Your task to perform on an android device: Set the phone to "Do not disturb". Image 0: 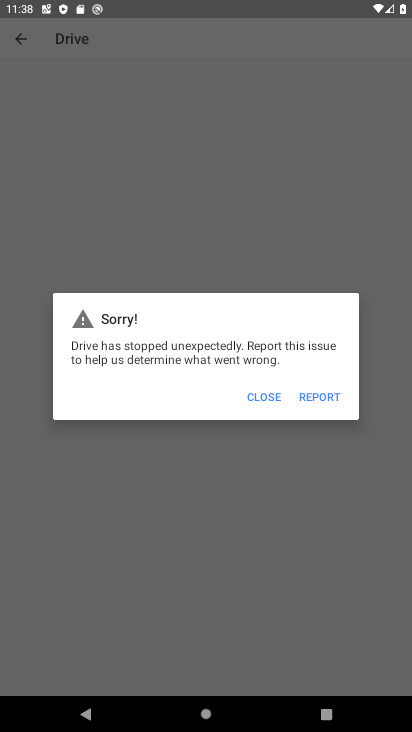
Step 0: press home button
Your task to perform on an android device: Set the phone to "Do not disturb". Image 1: 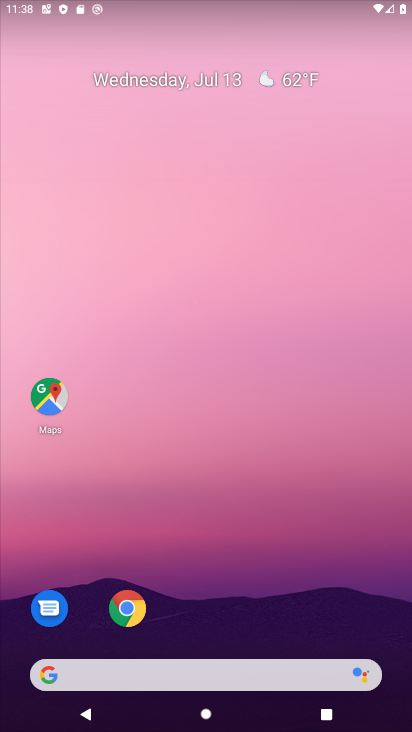
Step 1: drag from (253, 695) to (238, 153)
Your task to perform on an android device: Set the phone to "Do not disturb". Image 2: 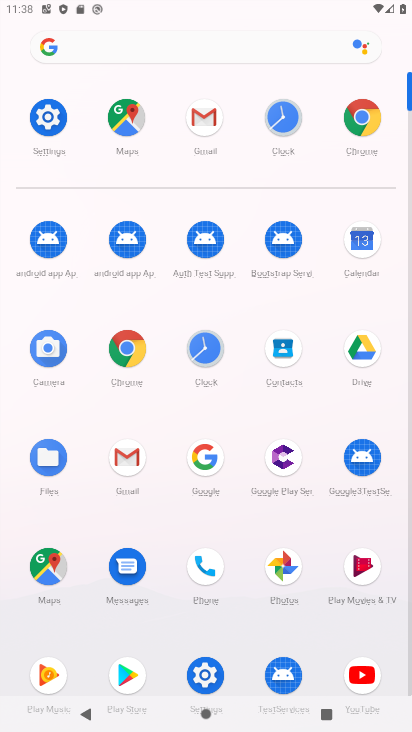
Step 2: click (50, 119)
Your task to perform on an android device: Set the phone to "Do not disturb". Image 3: 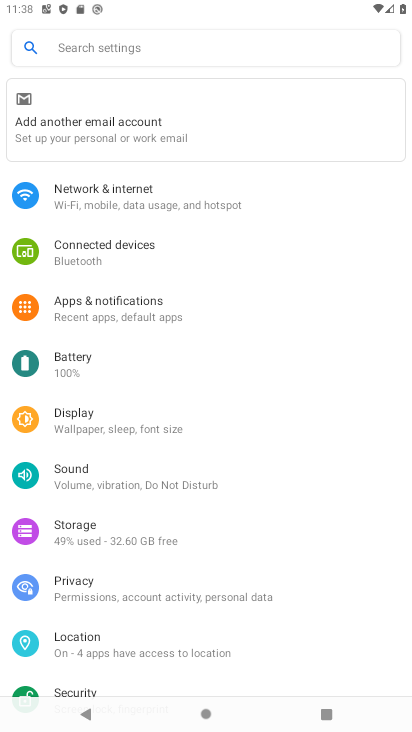
Step 3: click (110, 482)
Your task to perform on an android device: Set the phone to "Do not disturb". Image 4: 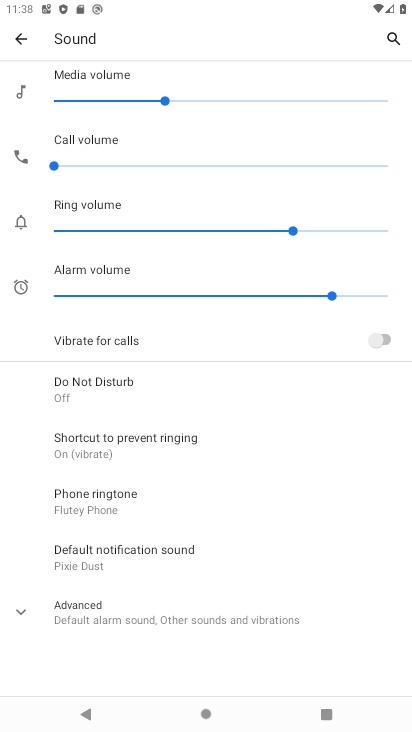
Step 4: click (73, 391)
Your task to perform on an android device: Set the phone to "Do not disturb". Image 5: 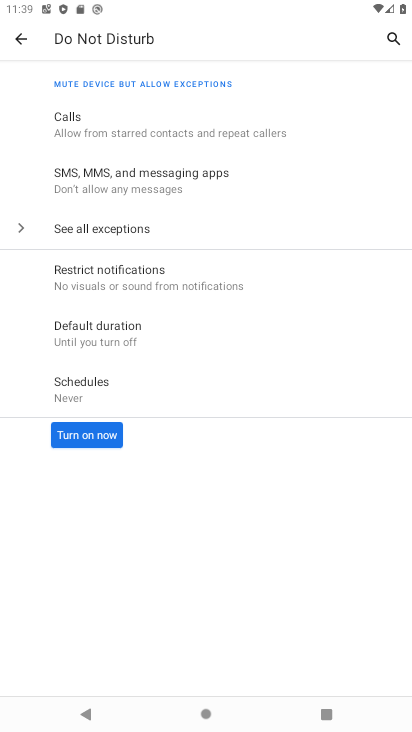
Step 5: click (83, 435)
Your task to perform on an android device: Set the phone to "Do not disturb". Image 6: 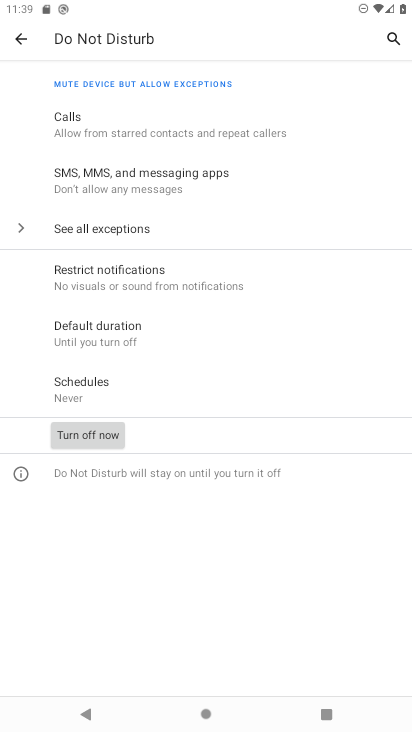
Step 6: task complete